Your task to perform on an android device: Turn on the flashlight Image 0: 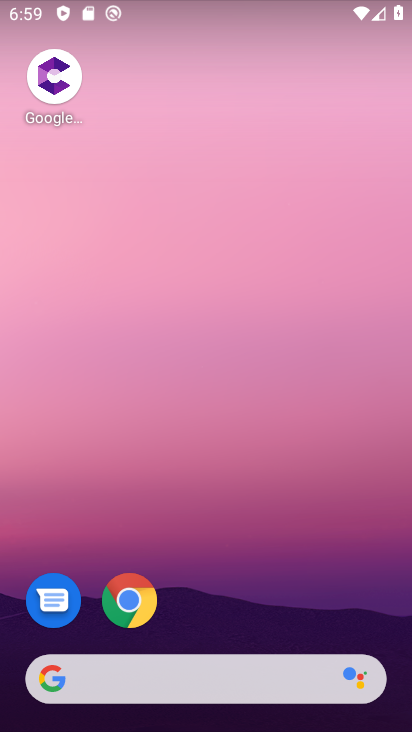
Step 0: drag from (255, 706) to (371, 57)
Your task to perform on an android device: Turn on the flashlight Image 1: 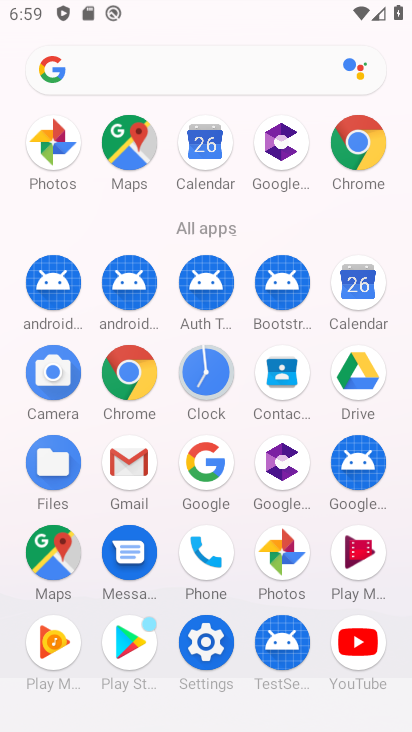
Step 1: click (199, 636)
Your task to perform on an android device: Turn on the flashlight Image 2: 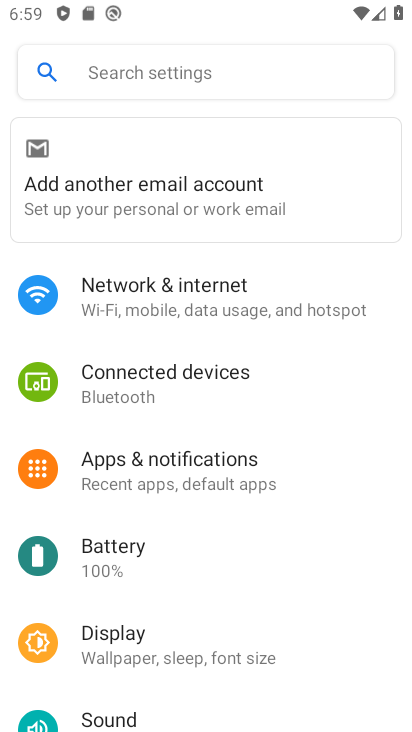
Step 2: click (158, 59)
Your task to perform on an android device: Turn on the flashlight Image 3: 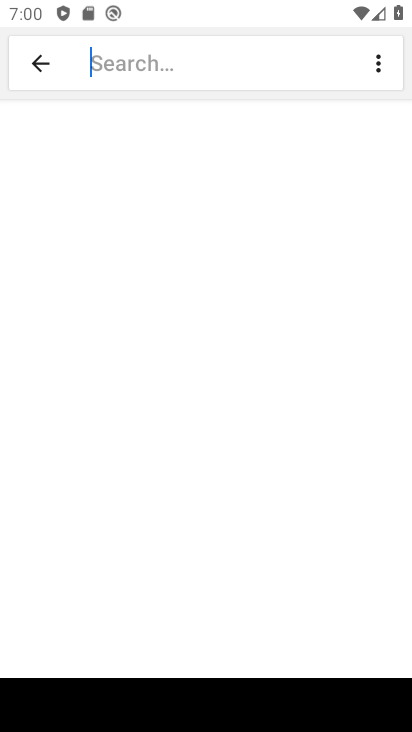
Step 3: drag from (360, 698) to (409, 410)
Your task to perform on an android device: Turn on the flashlight Image 4: 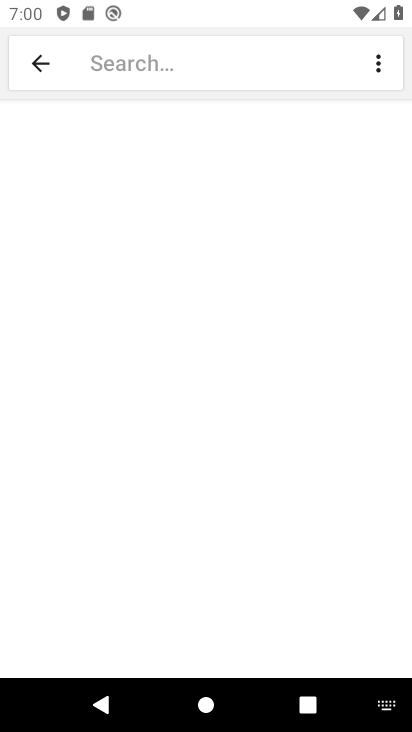
Step 4: click (387, 703)
Your task to perform on an android device: Turn on the flashlight Image 5: 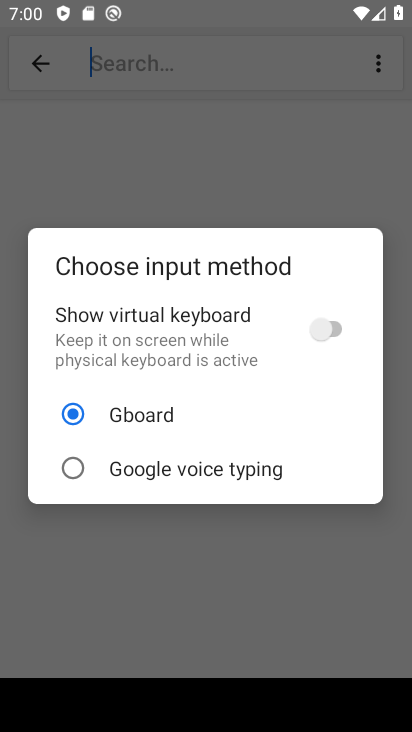
Step 5: click (319, 330)
Your task to perform on an android device: Turn on the flashlight Image 6: 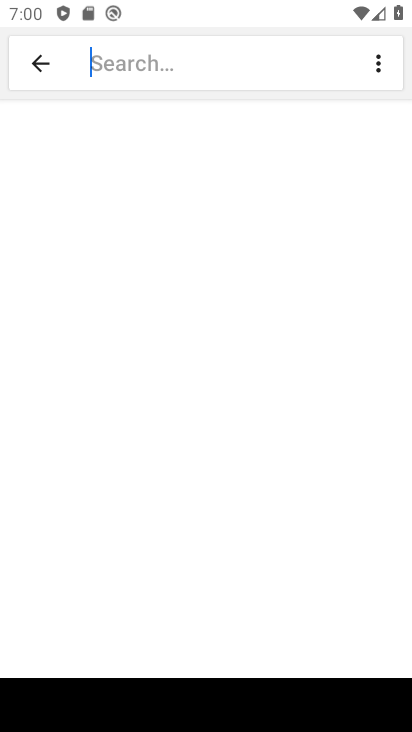
Step 6: click (156, 57)
Your task to perform on an android device: Turn on the flashlight Image 7: 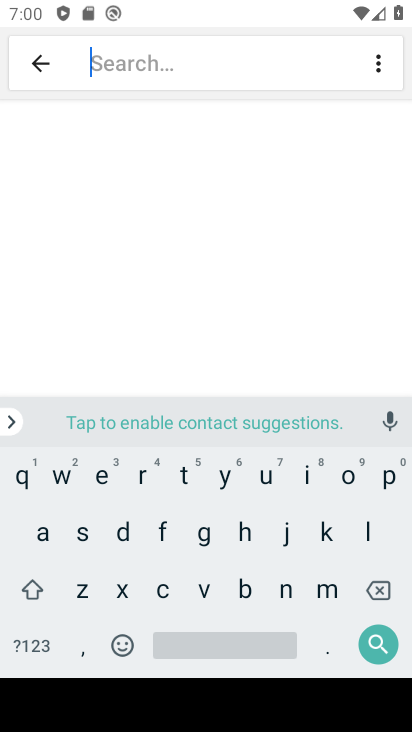
Step 7: click (164, 524)
Your task to perform on an android device: Turn on the flashlight Image 8: 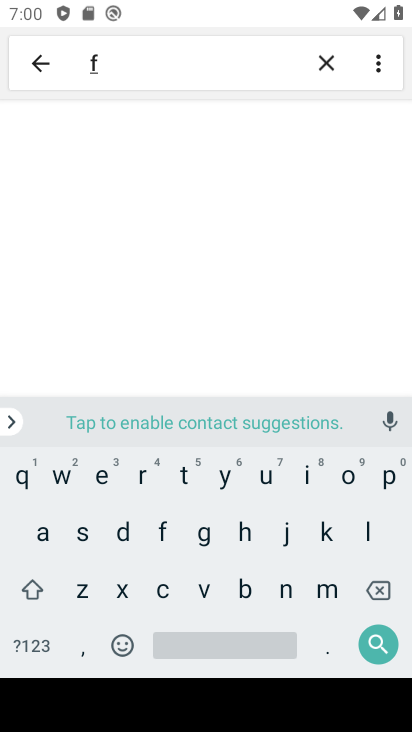
Step 8: click (366, 531)
Your task to perform on an android device: Turn on the flashlight Image 9: 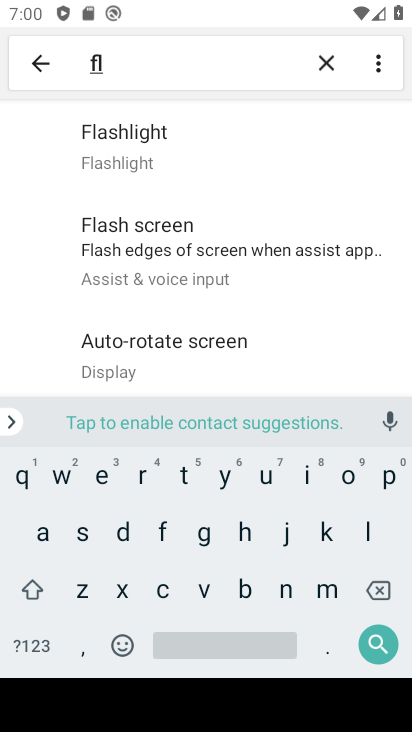
Step 9: task complete